Your task to perform on an android device: turn off picture-in-picture Image 0: 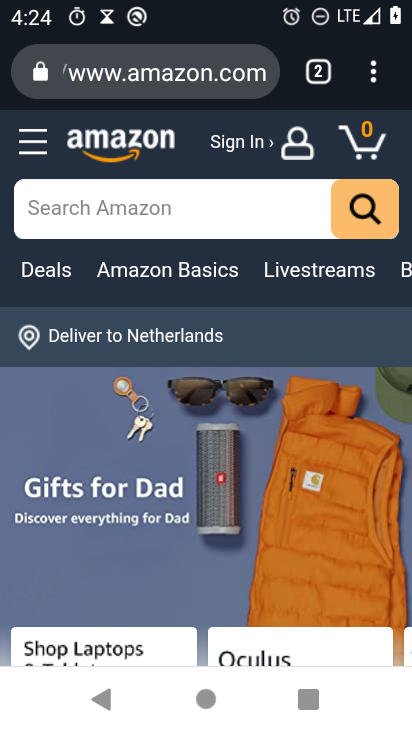
Step 0: press home button
Your task to perform on an android device: turn off picture-in-picture Image 1: 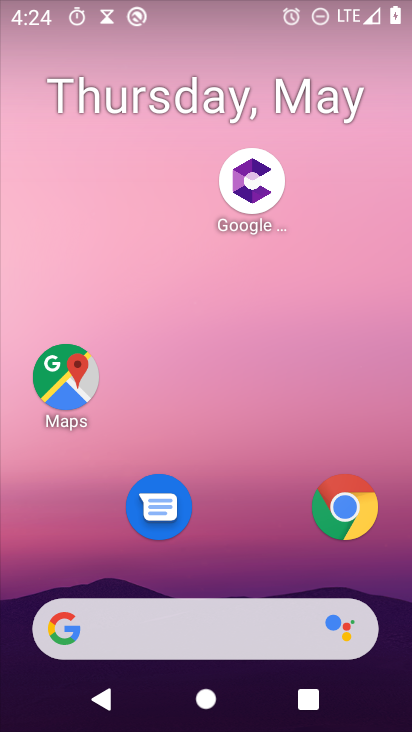
Step 1: click (350, 524)
Your task to perform on an android device: turn off picture-in-picture Image 2: 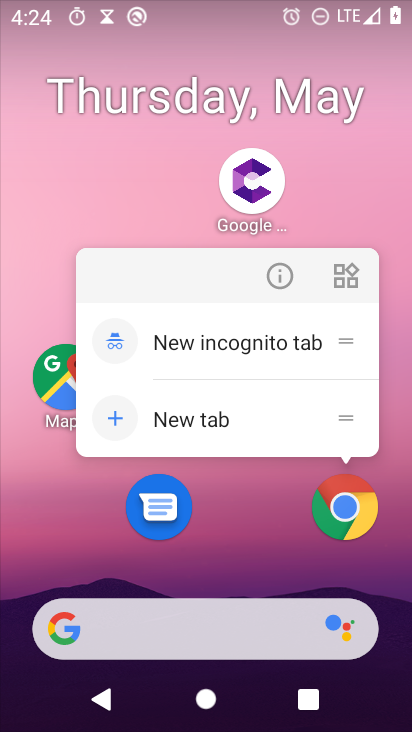
Step 2: click (279, 277)
Your task to perform on an android device: turn off picture-in-picture Image 3: 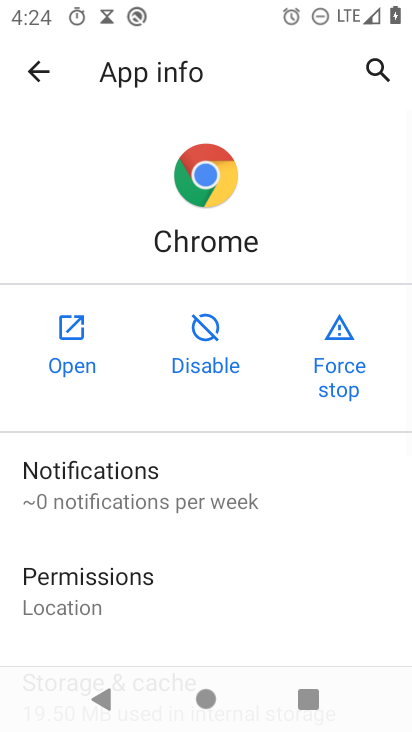
Step 3: drag from (304, 588) to (284, 208)
Your task to perform on an android device: turn off picture-in-picture Image 4: 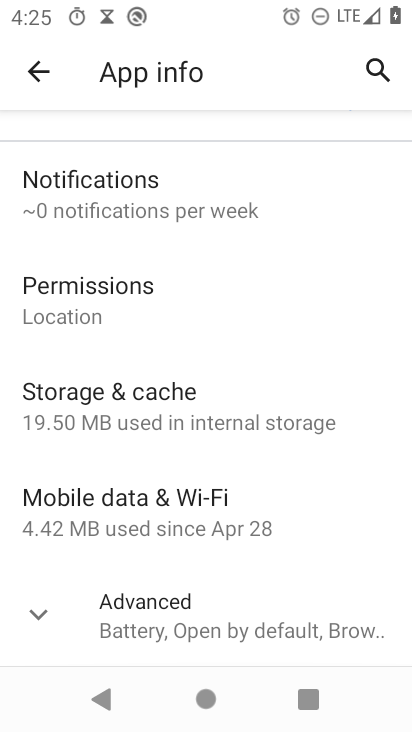
Step 4: drag from (286, 571) to (259, 204)
Your task to perform on an android device: turn off picture-in-picture Image 5: 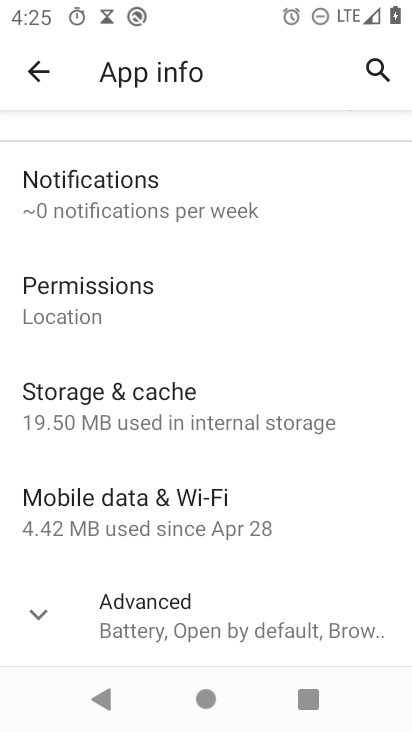
Step 5: click (36, 620)
Your task to perform on an android device: turn off picture-in-picture Image 6: 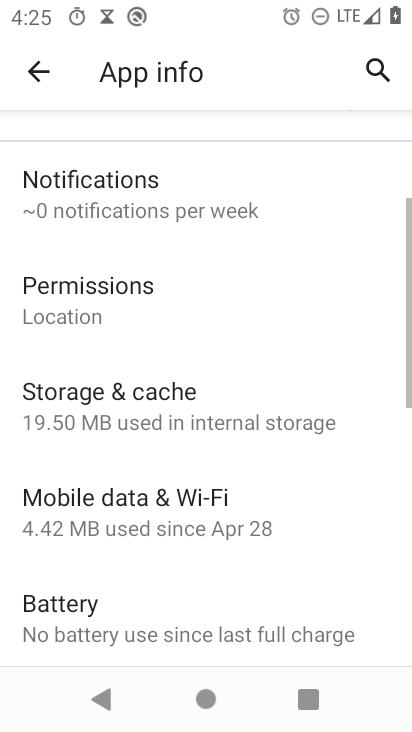
Step 6: drag from (333, 602) to (308, 258)
Your task to perform on an android device: turn off picture-in-picture Image 7: 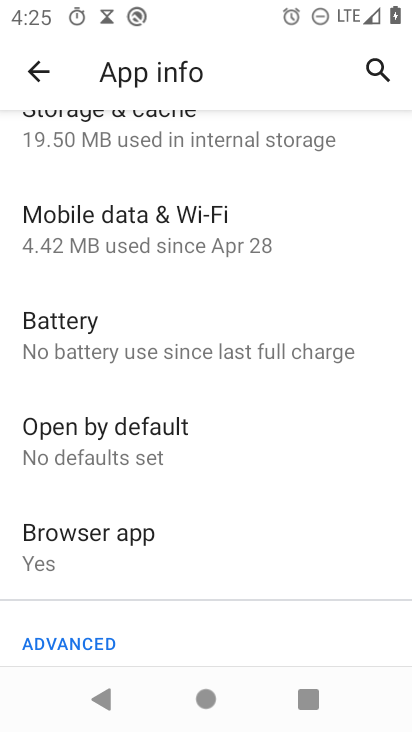
Step 7: drag from (269, 567) to (273, 157)
Your task to perform on an android device: turn off picture-in-picture Image 8: 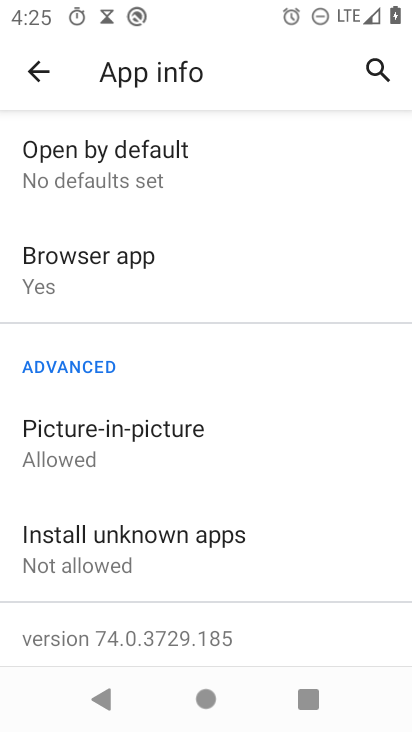
Step 8: click (200, 443)
Your task to perform on an android device: turn off picture-in-picture Image 9: 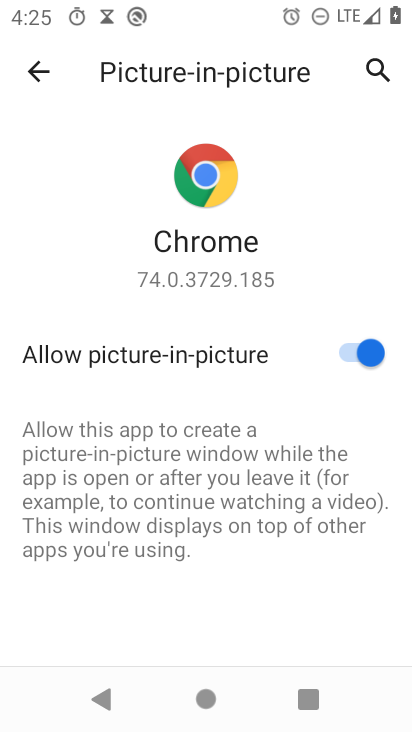
Step 9: click (341, 352)
Your task to perform on an android device: turn off picture-in-picture Image 10: 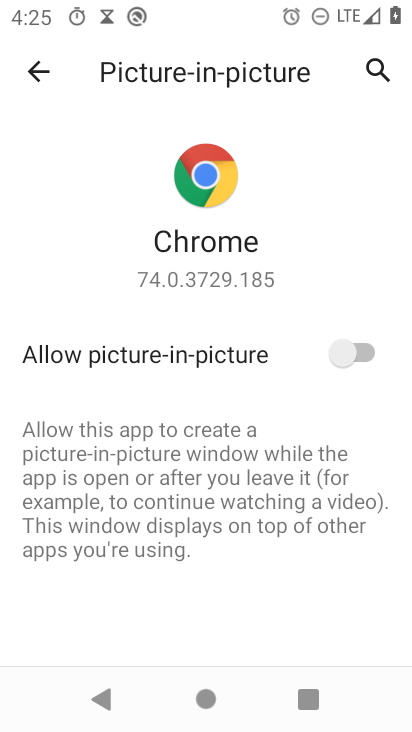
Step 10: task complete